Your task to perform on an android device: Go to Google Image 0: 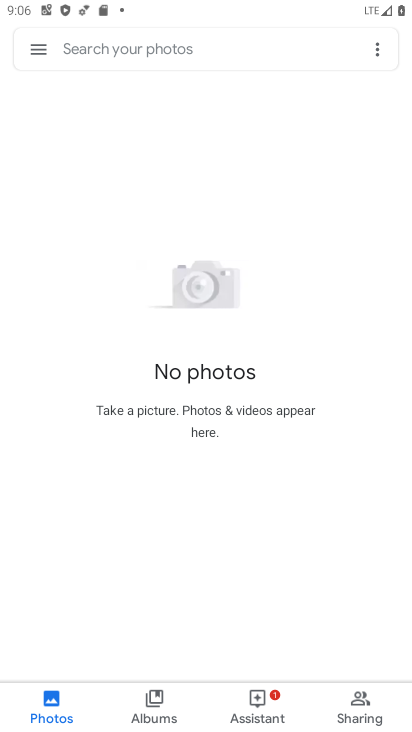
Step 0: press home button
Your task to perform on an android device: Go to Google Image 1: 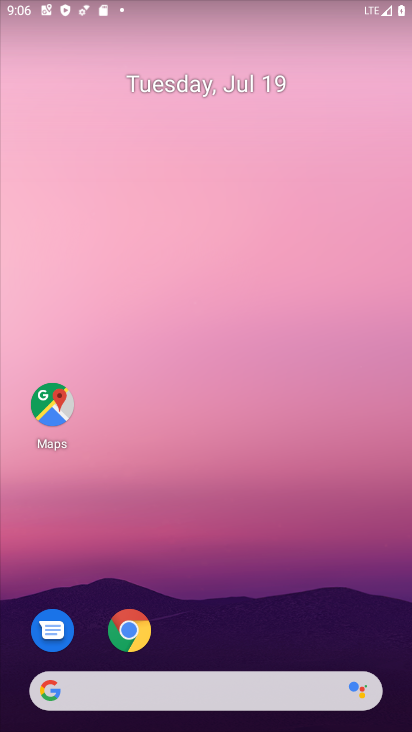
Step 1: drag from (228, 577) to (255, 104)
Your task to perform on an android device: Go to Google Image 2: 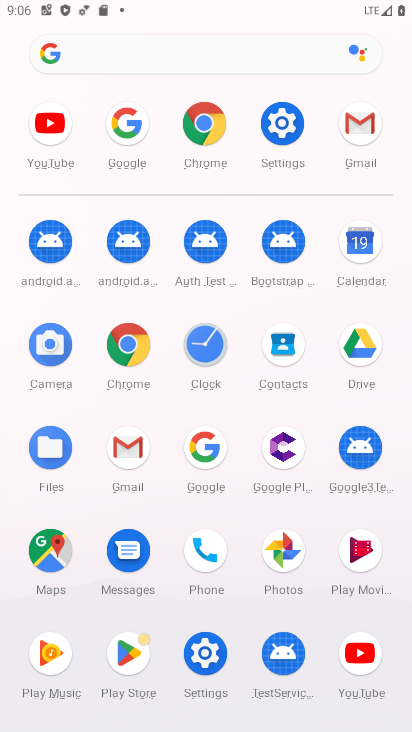
Step 2: click (128, 130)
Your task to perform on an android device: Go to Google Image 3: 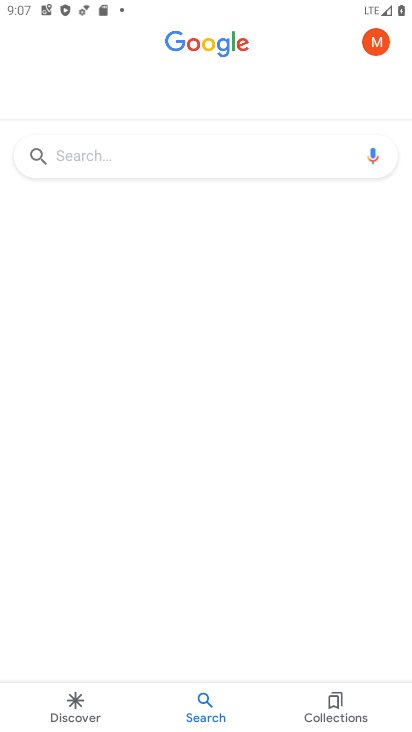
Step 3: task complete